Your task to perform on an android device: Where can I buy a nice beach hat? Image 0: 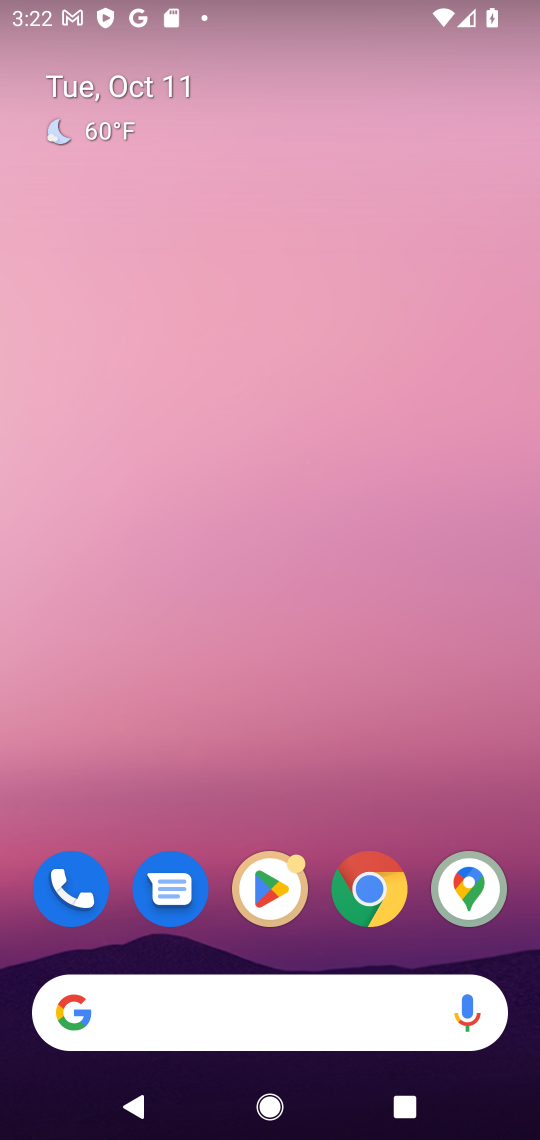
Step 0: drag from (167, 944) to (118, 217)
Your task to perform on an android device: Where can I buy a nice beach hat? Image 1: 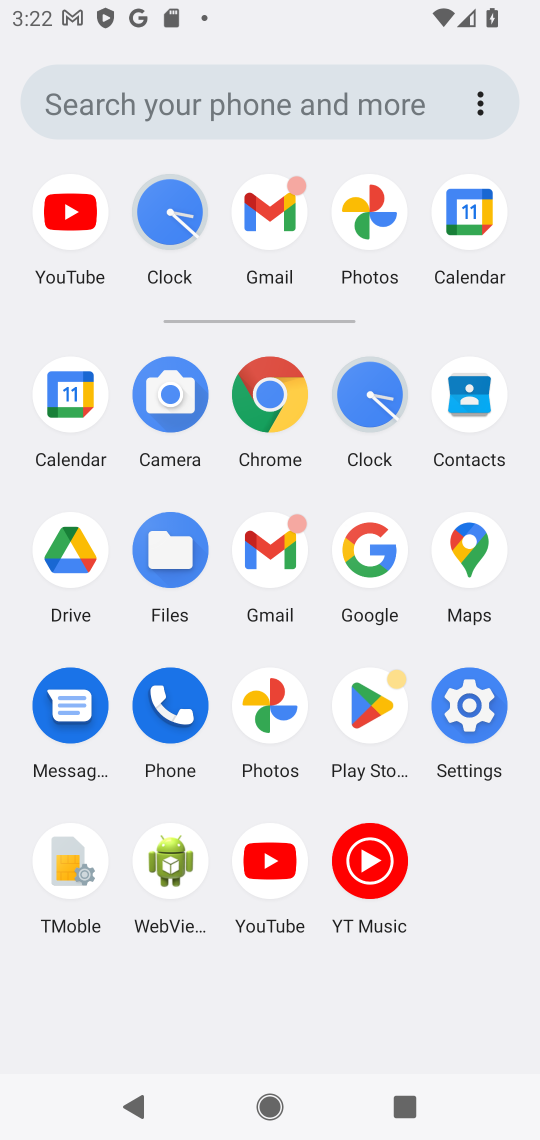
Step 1: click (370, 549)
Your task to perform on an android device: Where can I buy a nice beach hat? Image 2: 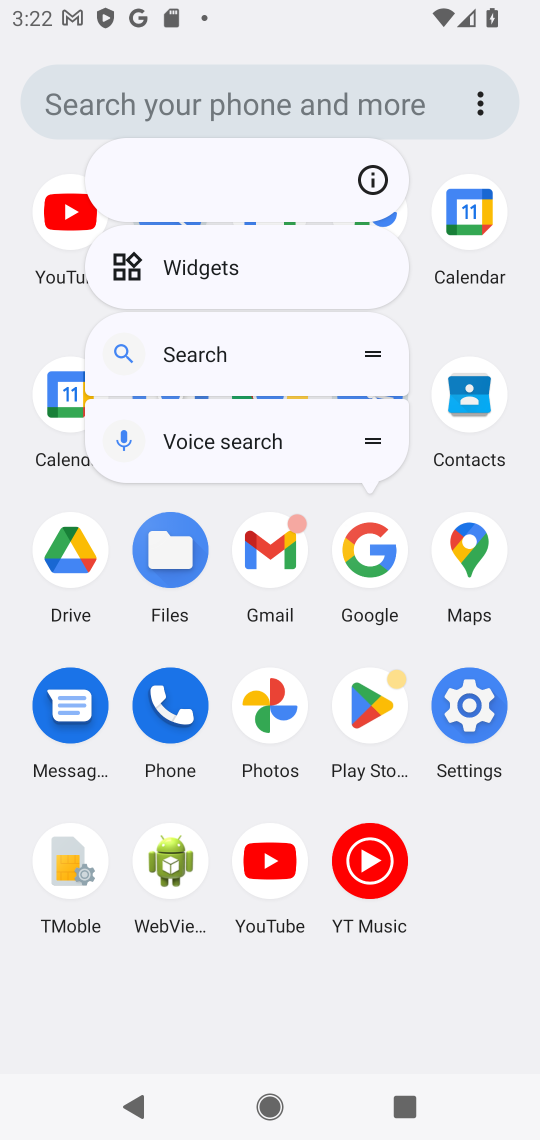
Step 2: click (370, 549)
Your task to perform on an android device: Where can I buy a nice beach hat? Image 3: 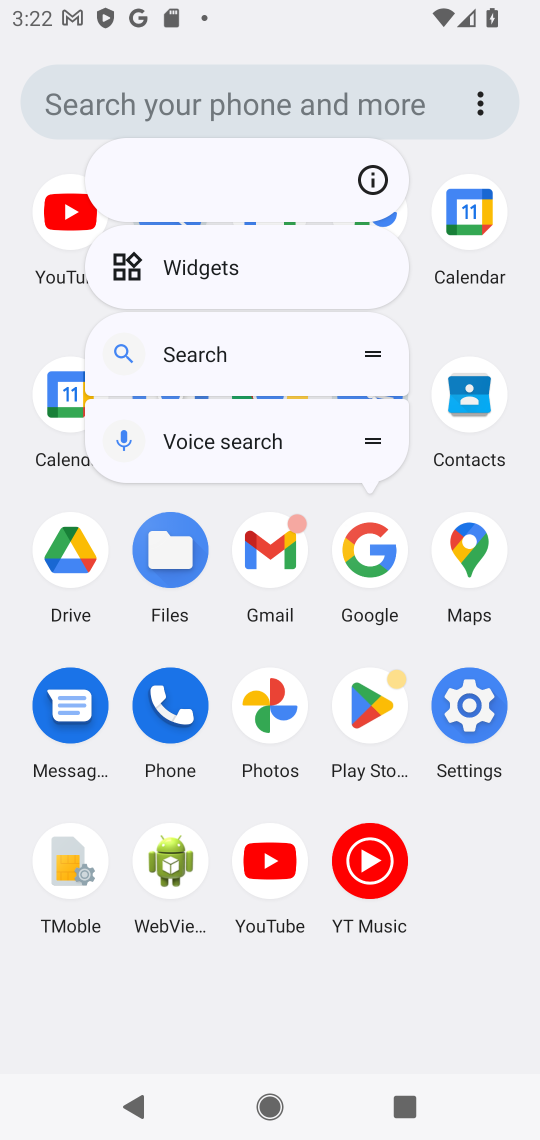
Step 3: click (362, 540)
Your task to perform on an android device: Where can I buy a nice beach hat? Image 4: 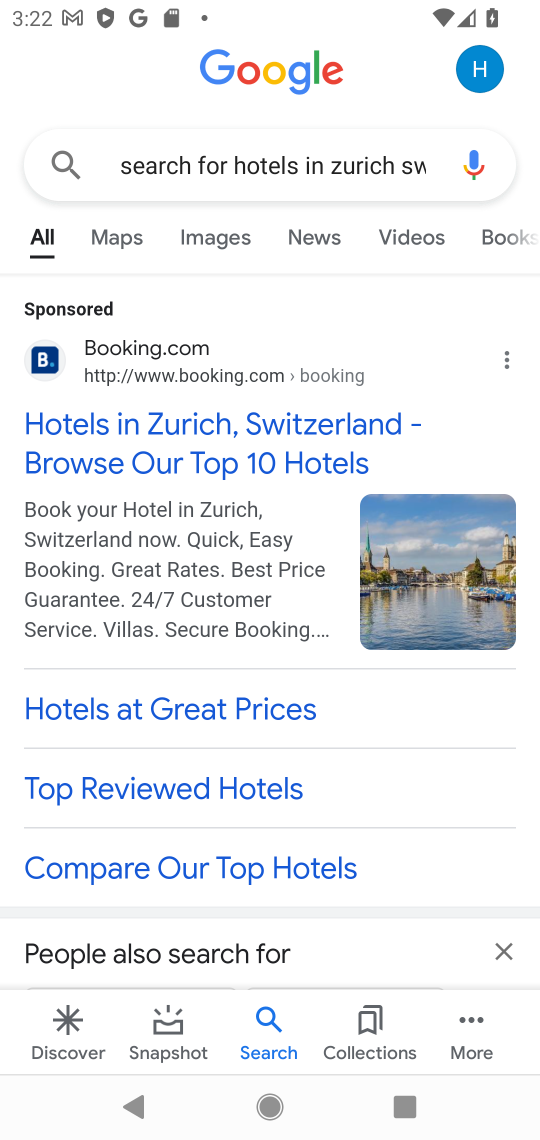
Step 4: click (253, 170)
Your task to perform on an android device: Where can I buy a nice beach hat? Image 5: 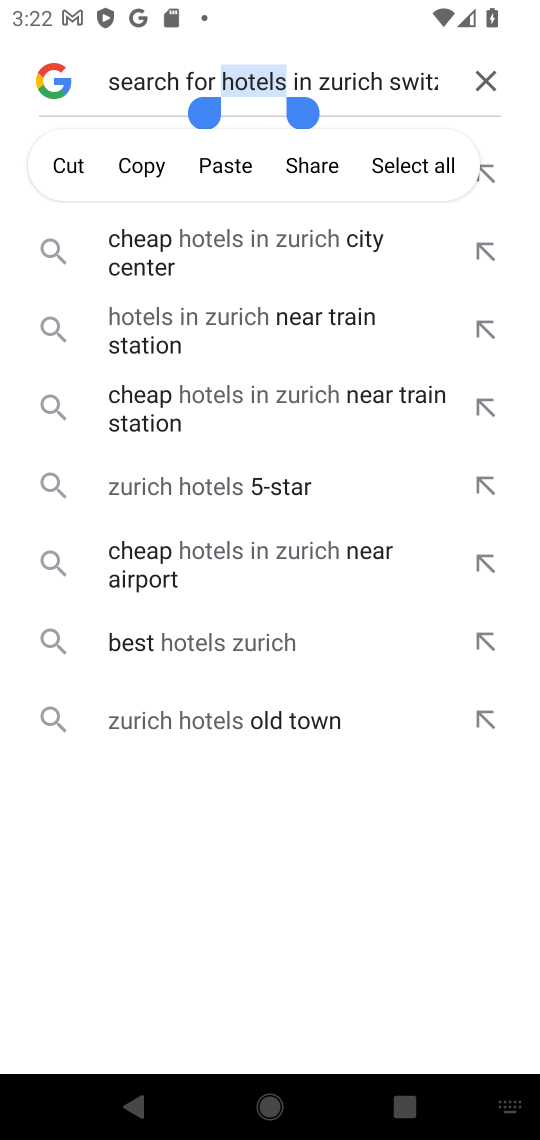
Step 5: click (478, 74)
Your task to perform on an android device: Where can I buy a nice beach hat? Image 6: 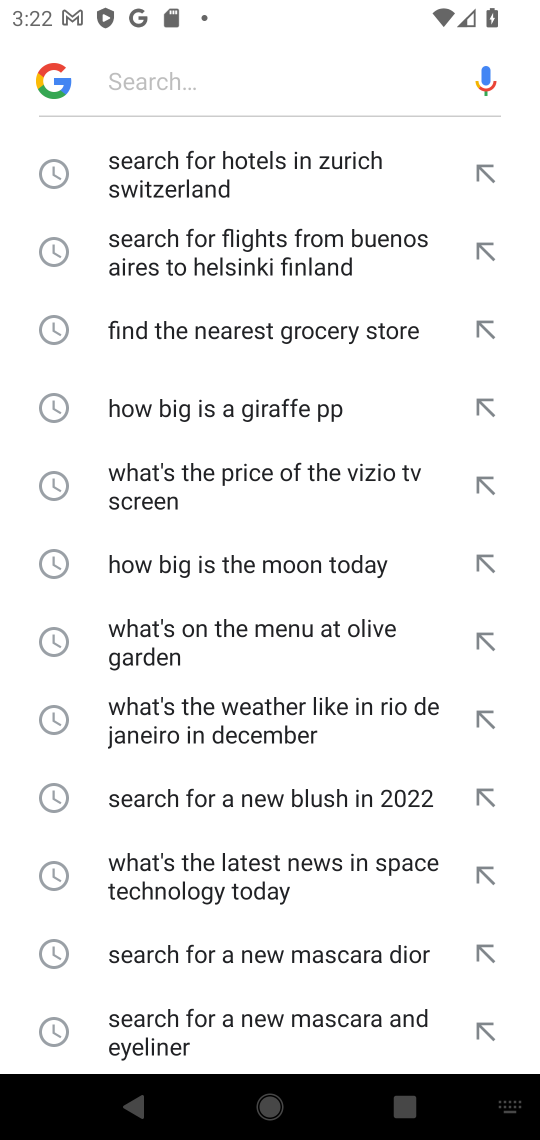
Step 6: click (147, 71)
Your task to perform on an android device: Where can I buy a nice beach hat? Image 7: 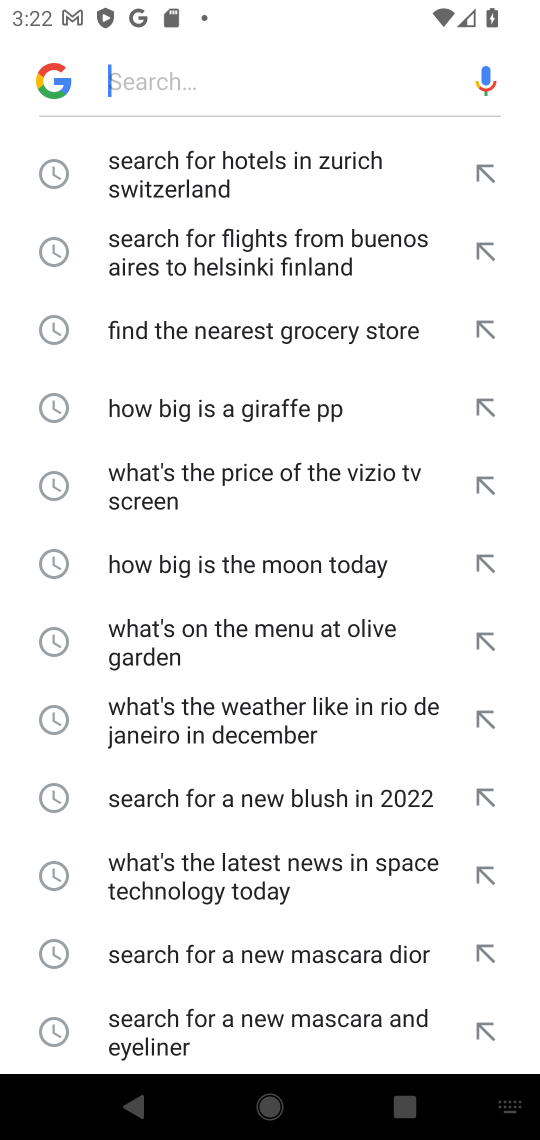
Step 7: type "Where can I buy a nice beach hat? "
Your task to perform on an android device: Where can I buy a nice beach hat? Image 8: 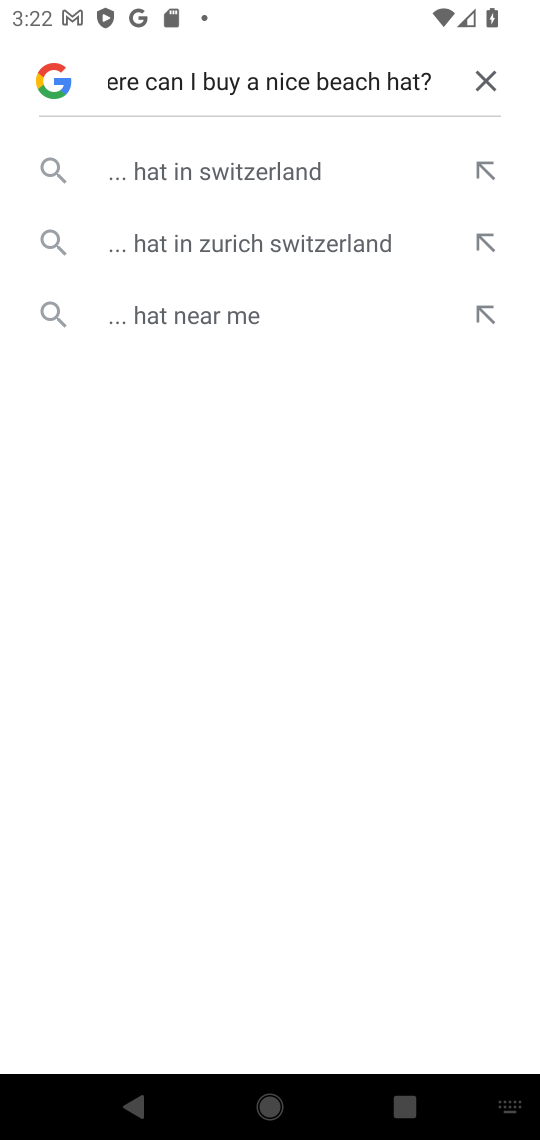
Step 8: click (235, 302)
Your task to perform on an android device: Where can I buy a nice beach hat? Image 9: 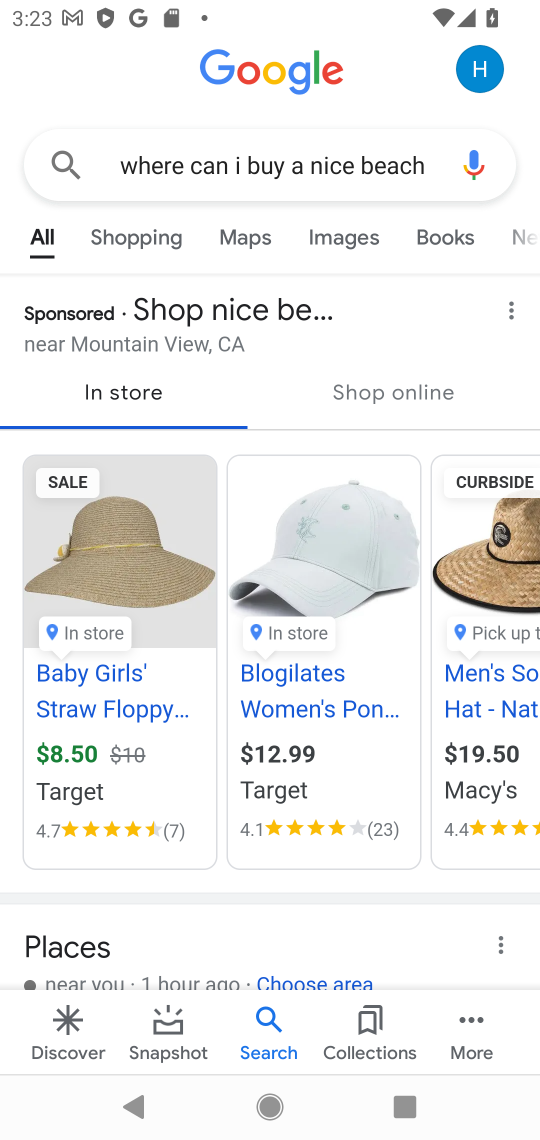
Step 9: task complete